Your task to perform on an android device: turn on notifications settings in the gmail app Image 0: 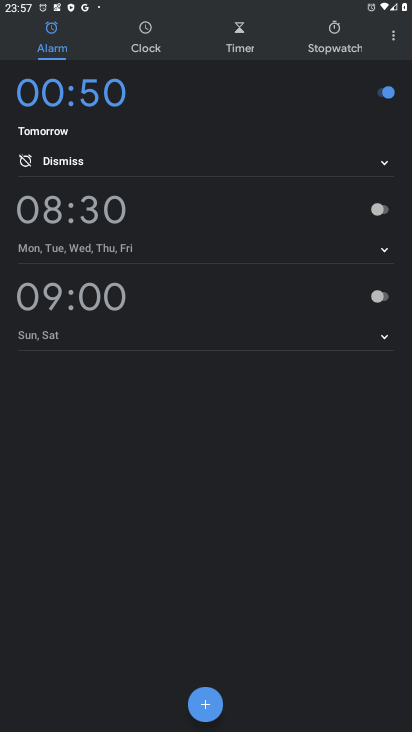
Step 0: press home button
Your task to perform on an android device: turn on notifications settings in the gmail app Image 1: 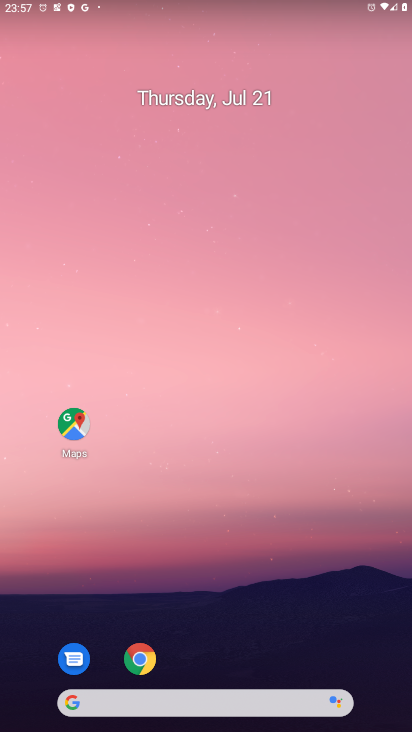
Step 1: drag from (178, 699) to (240, 235)
Your task to perform on an android device: turn on notifications settings in the gmail app Image 2: 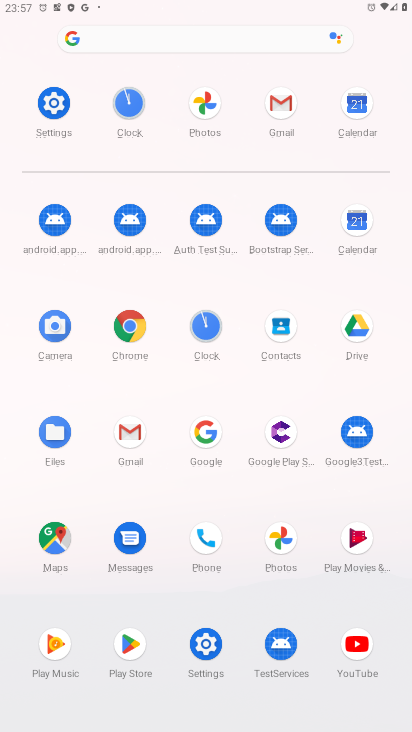
Step 2: click (281, 99)
Your task to perform on an android device: turn on notifications settings in the gmail app Image 3: 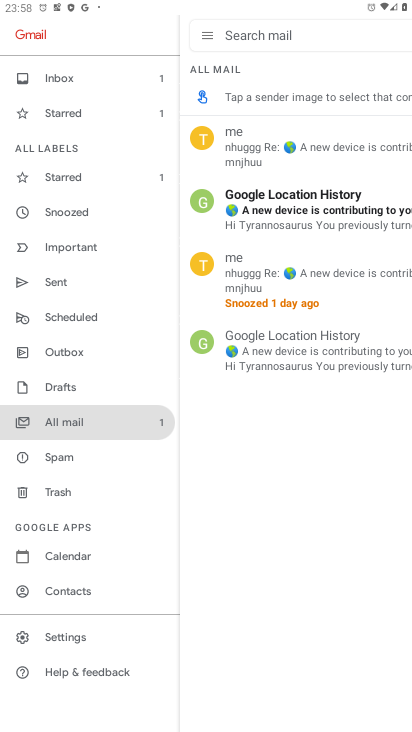
Step 3: click (63, 642)
Your task to perform on an android device: turn on notifications settings in the gmail app Image 4: 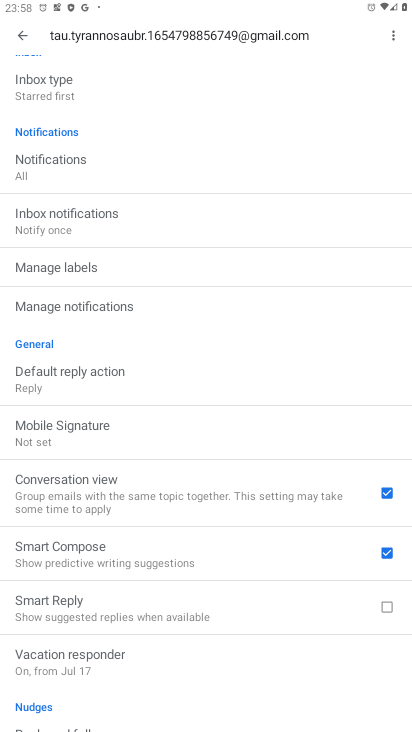
Step 4: click (78, 311)
Your task to perform on an android device: turn on notifications settings in the gmail app Image 5: 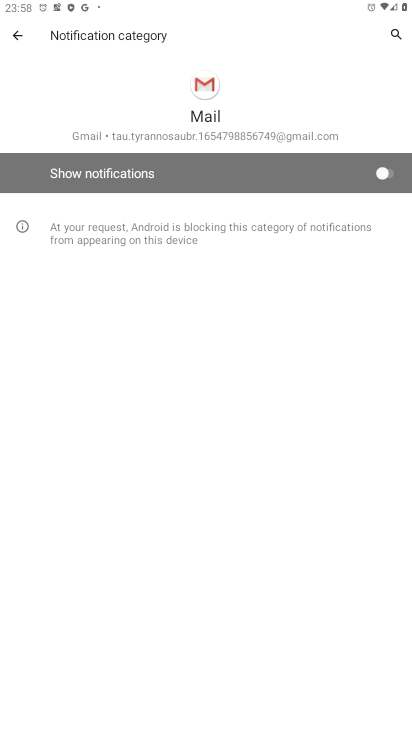
Step 5: click (384, 176)
Your task to perform on an android device: turn on notifications settings in the gmail app Image 6: 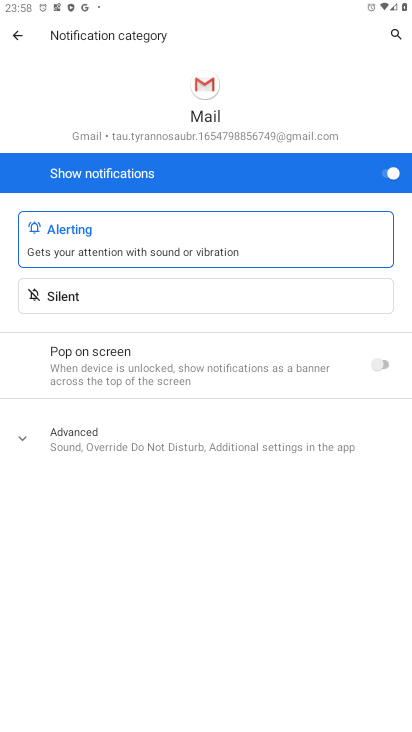
Step 6: task complete